Your task to perform on an android device: What's the weather? Image 0: 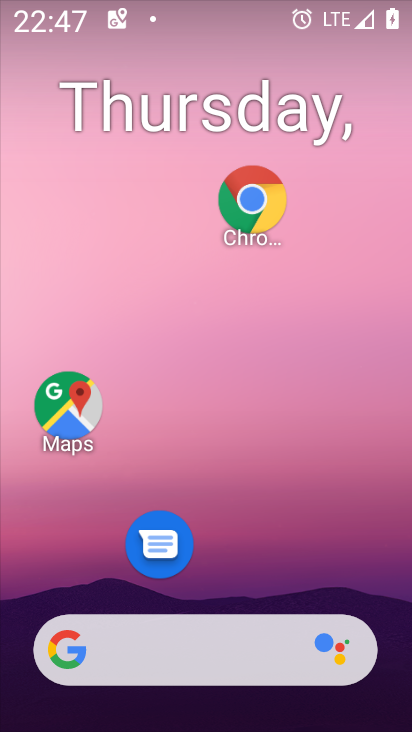
Step 0: click (211, 628)
Your task to perform on an android device: What's the weather? Image 1: 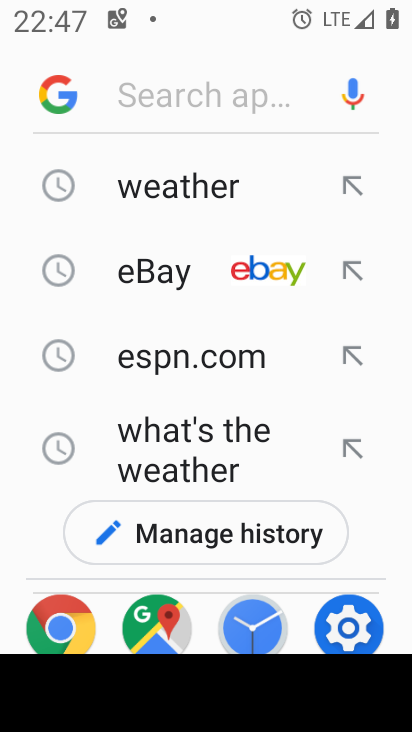
Step 1: click (200, 184)
Your task to perform on an android device: What's the weather? Image 2: 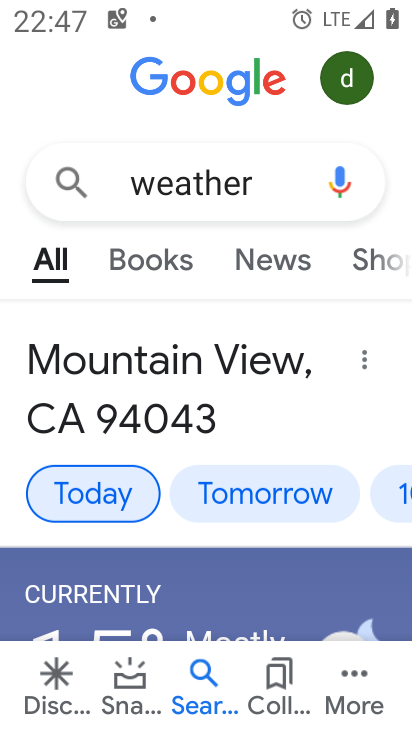
Step 2: task complete